Your task to perform on an android device: turn off airplane mode Image 0: 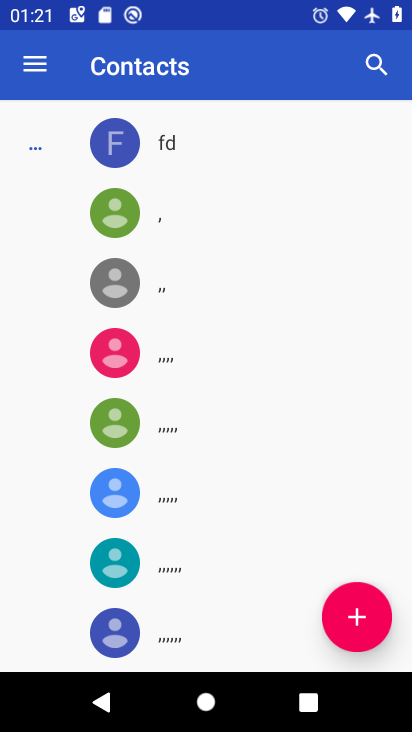
Step 0: press home button
Your task to perform on an android device: turn off airplane mode Image 1: 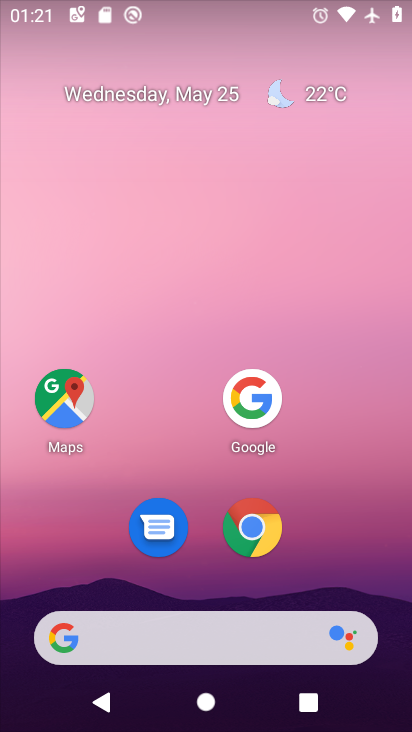
Step 1: drag from (152, 624) to (338, 26)
Your task to perform on an android device: turn off airplane mode Image 2: 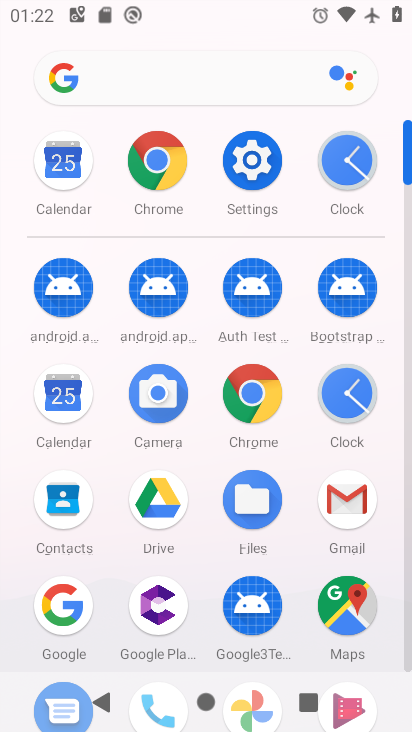
Step 2: click (257, 153)
Your task to perform on an android device: turn off airplane mode Image 3: 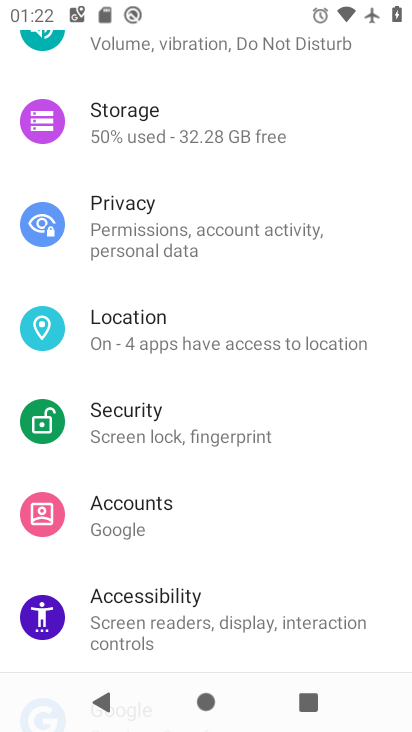
Step 3: drag from (337, 104) to (206, 598)
Your task to perform on an android device: turn off airplane mode Image 4: 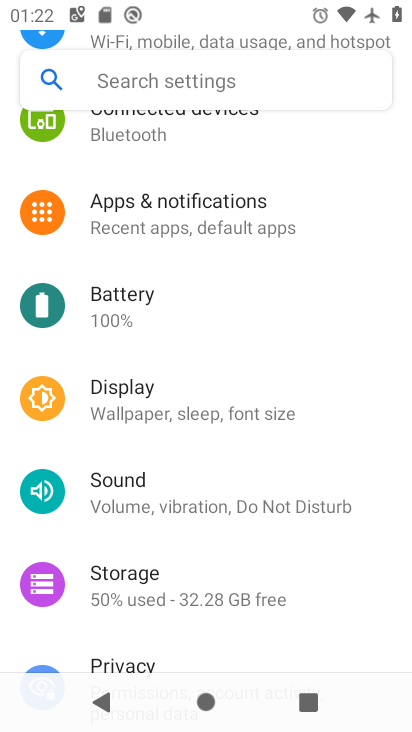
Step 4: drag from (337, 172) to (205, 615)
Your task to perform on an android device: turn off airplane mode Image 5: 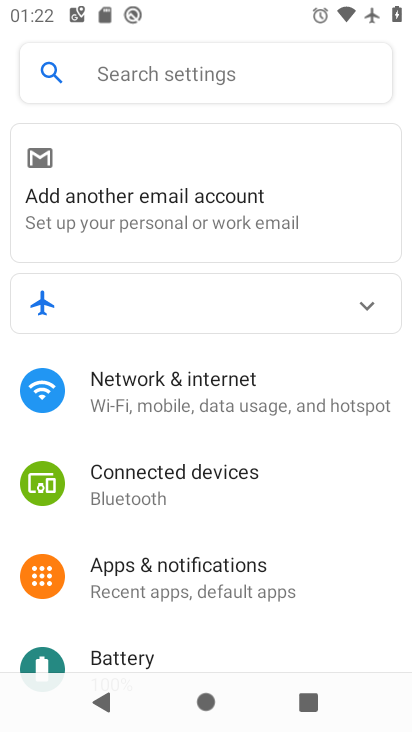
Step 5: click (225, 412)
Your task to perform on an android device: turn off airplane mode Image 6: 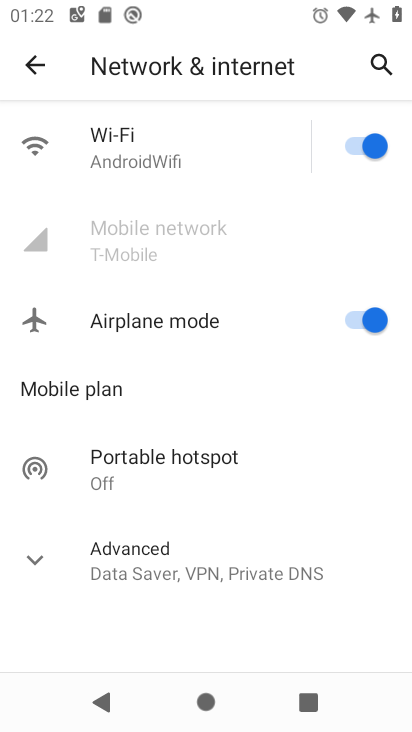
Step 6: click (358, 315)
Your task to perform on an android device: turn off airplane mode Image 7: 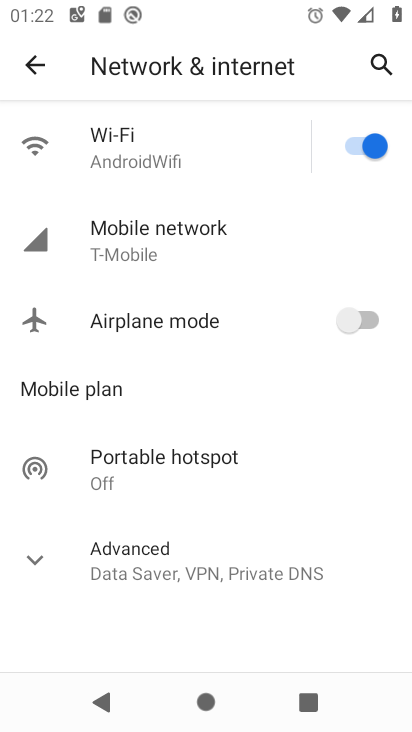
Step 7: task complete